Your task to perform on an android device: toggle pop-ups in chrome Image 0: 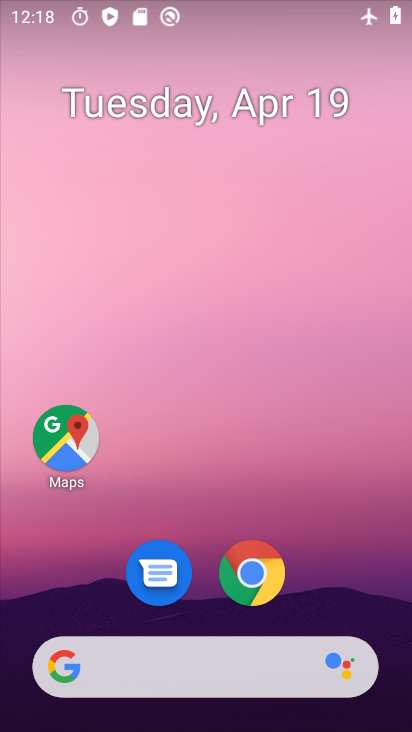
Step 0: click (257, 582)
Your task to perform on an android device: toggle pop-ups in chrome Image 1: 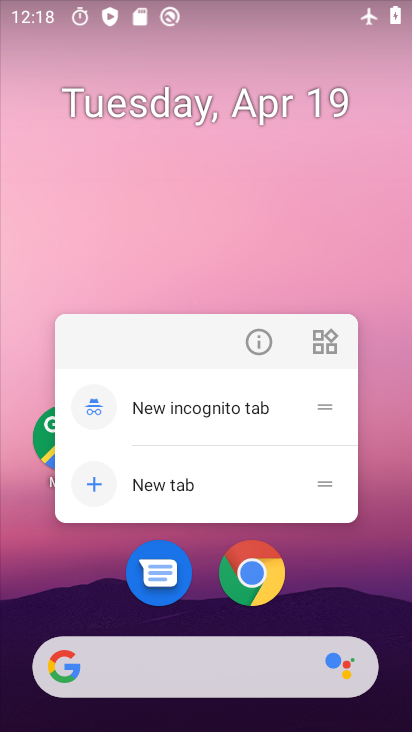
Step 1: click (251, 588)
Your task to perform on an android device: toggle pop-ups in chrome Image 2: 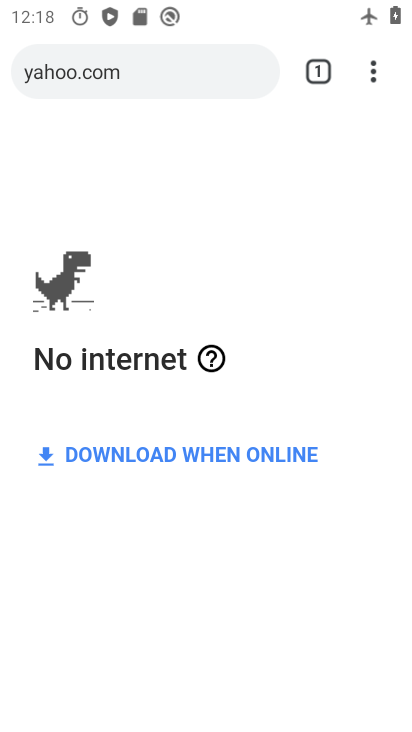
Step 2: drag from (372, 73) to (184, 569)
Your task to perform on an android device: toggle pop-ups in chrome Image 3: 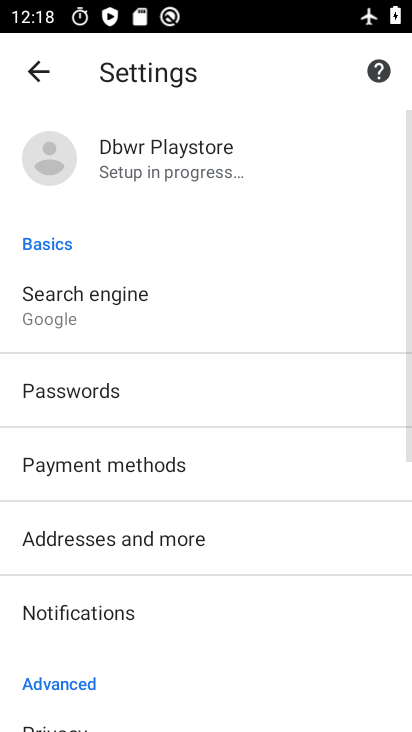
Step 3: drag from (144, 569) to (191, 303)
Your task to perform on an android device: toggle pop-ups in chrome Image 4: 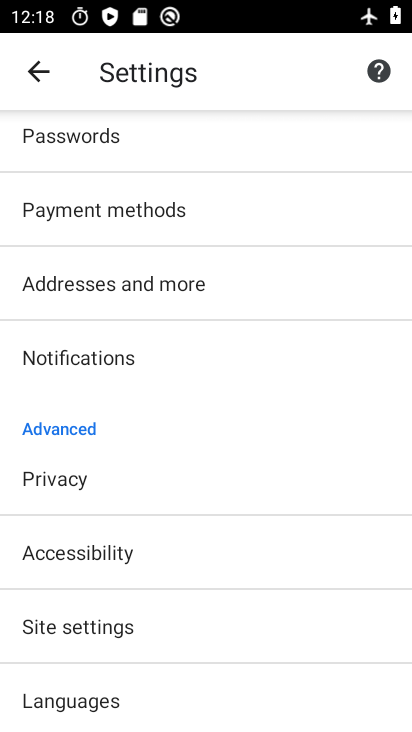
Step 4: click (96, 628)
Your task to perform on an android device: toggle pop-ups in chrome Image 5: 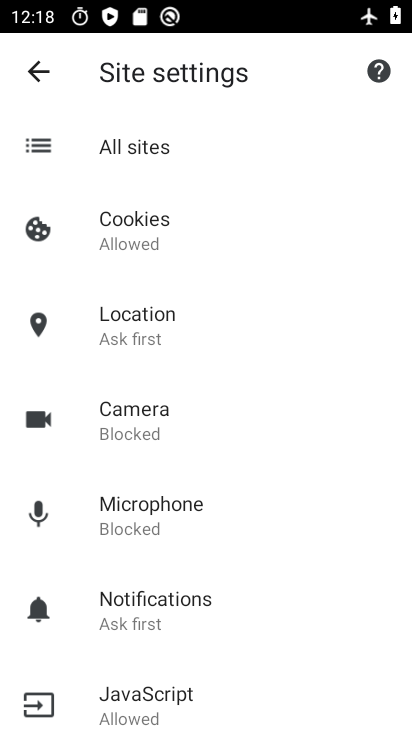
Step 5: drag from (212, 652) to (241, 274)
Your task to perform on an android device: toggle pop-ups in chrome Image 6: 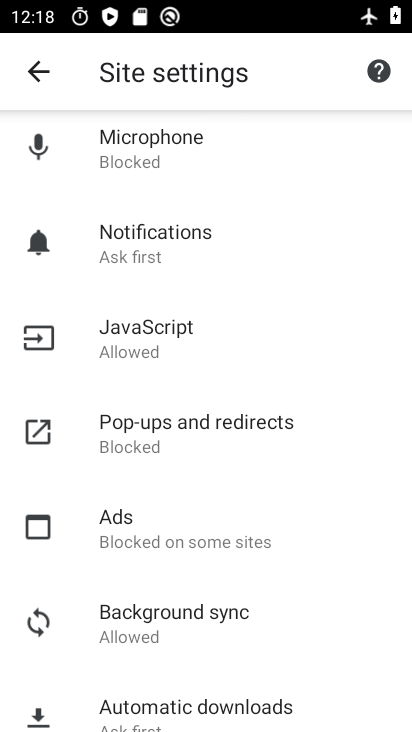
Step 6: click (204, 432)
Your task to perform on an android device: toggle pop-ups in chrome Image 7: 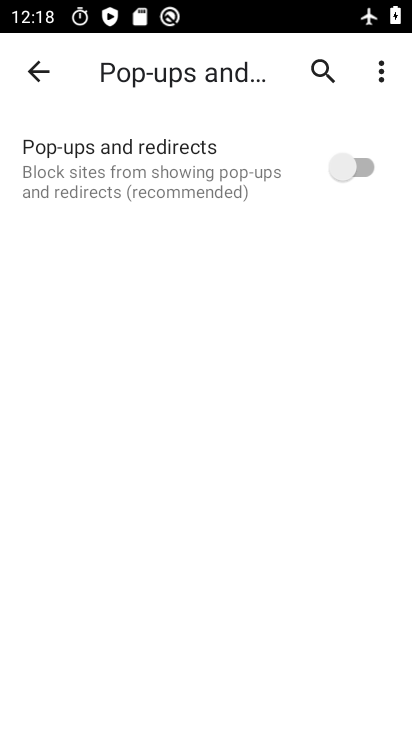
Step 7: click (363, 168)
Your task to perform on an android device: toggle pop-ups in chrome Image 8: 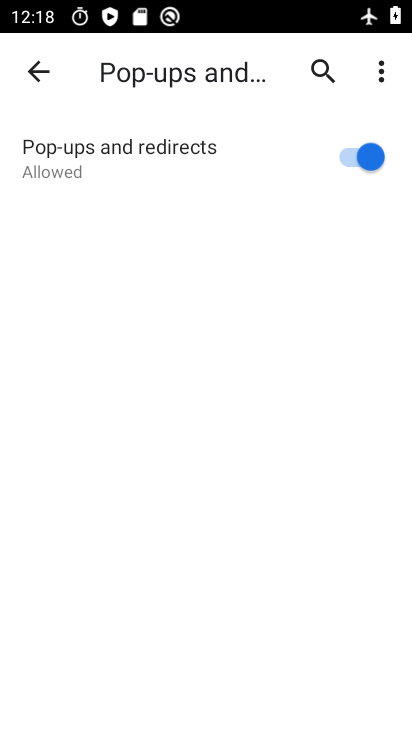
Step 8: task complete